Your task to perform on an android device: uninstall "Microsoft Excel" Image 0: 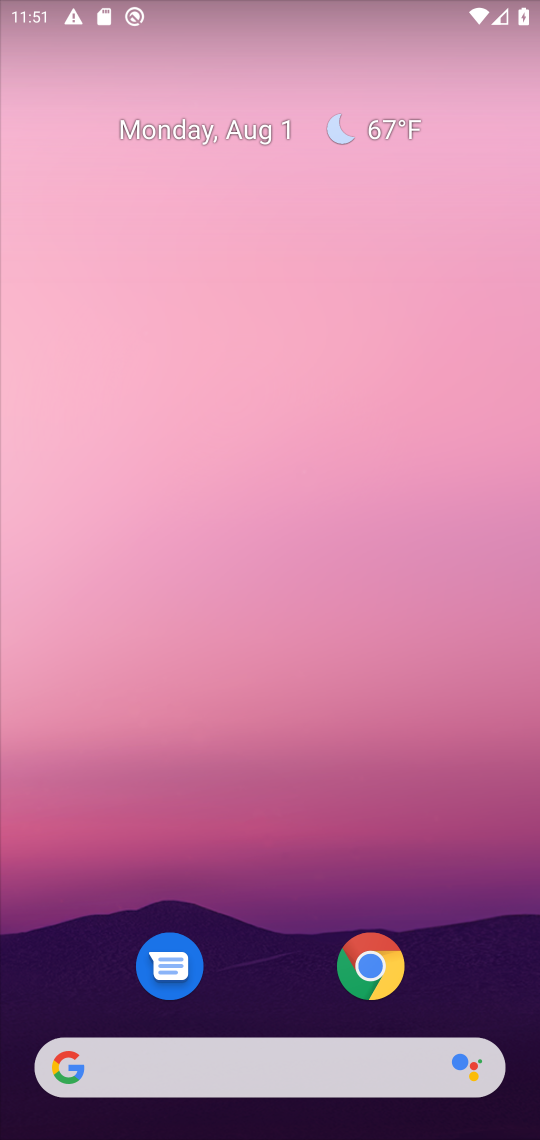
Step 0: drag from (470, 864) to (472, 97)
Your task to perform on an android device: uninstall "Microsoft Excel" Image 1: 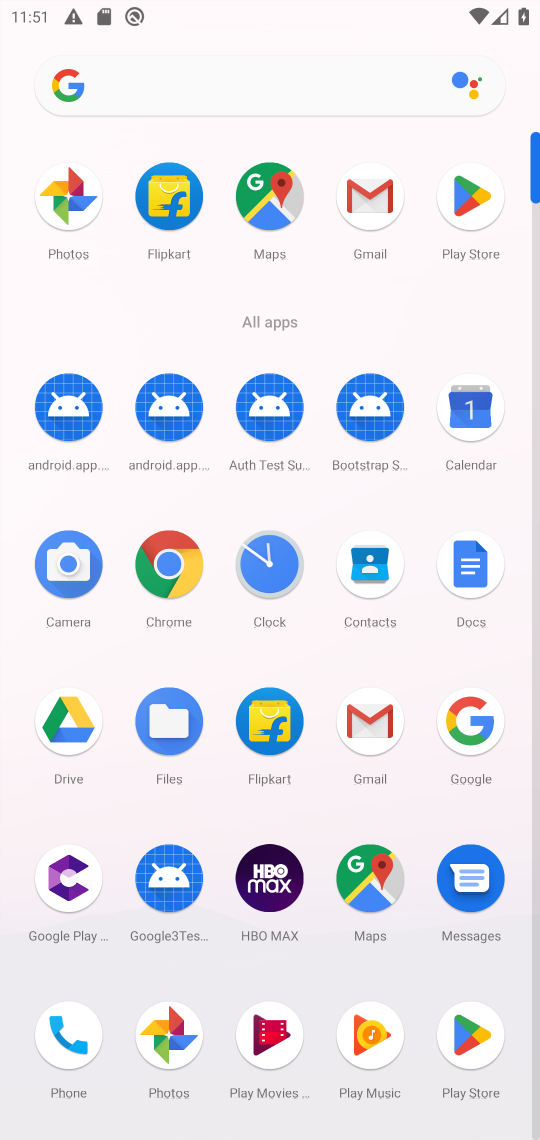
Step 1: click (466, 204)
Your task to perform on an android device: uninstall "Microsoft Excel" Image 2: 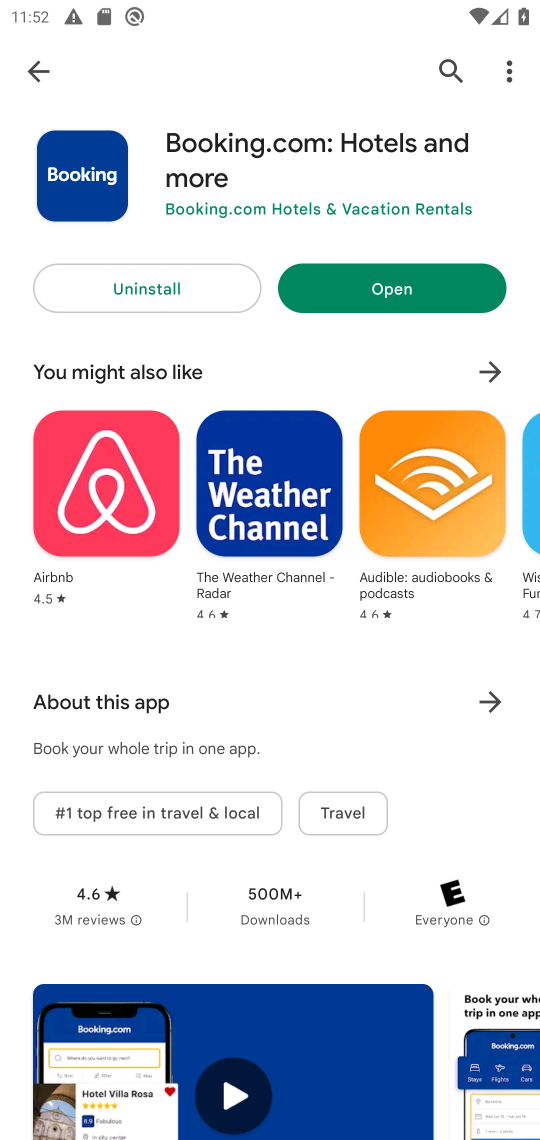
Step 2: click (445, 71)
Your task to perform on an android device: uninstall "Microsoft Excel" Image 3: 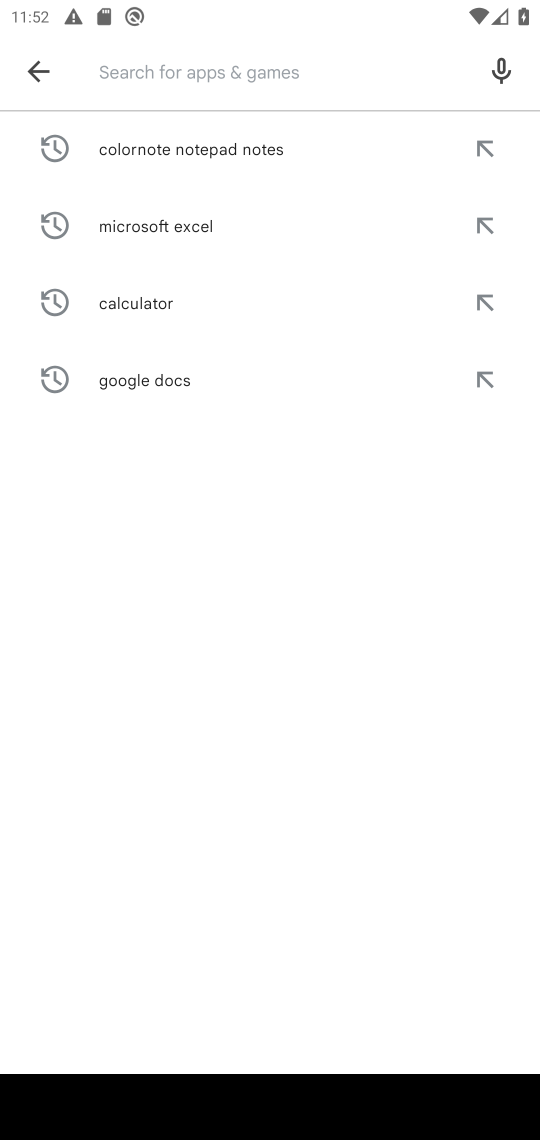
Step 3: click (356, 83)
Your task to perform on an android device: uninstall "Microsoft Excel" Image 4: 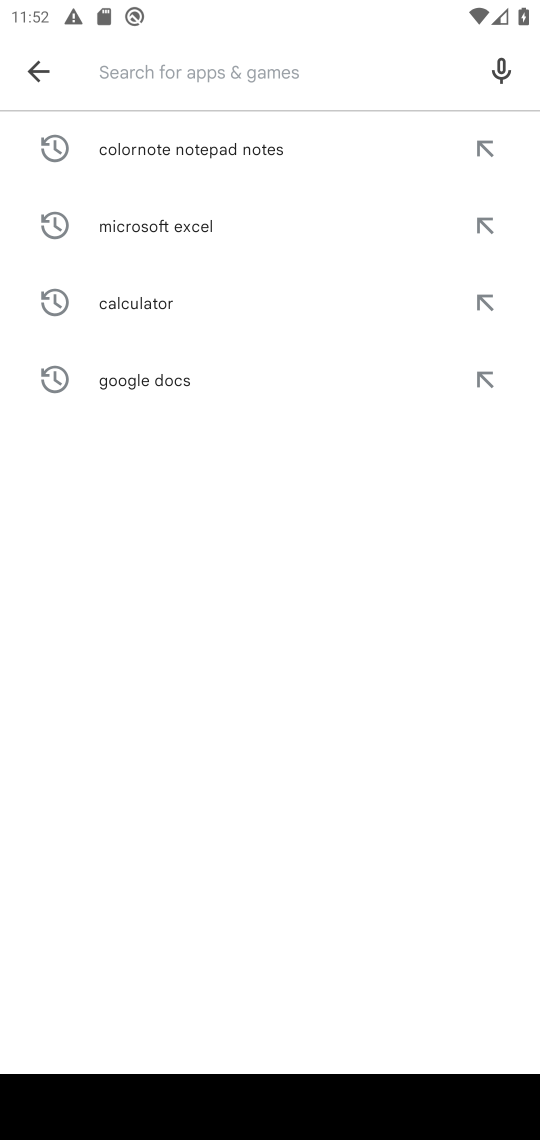
Step 4: type "microsoft excel"
Your task to perform on an android device: uninstall "Microsoft Excel" Image 5: 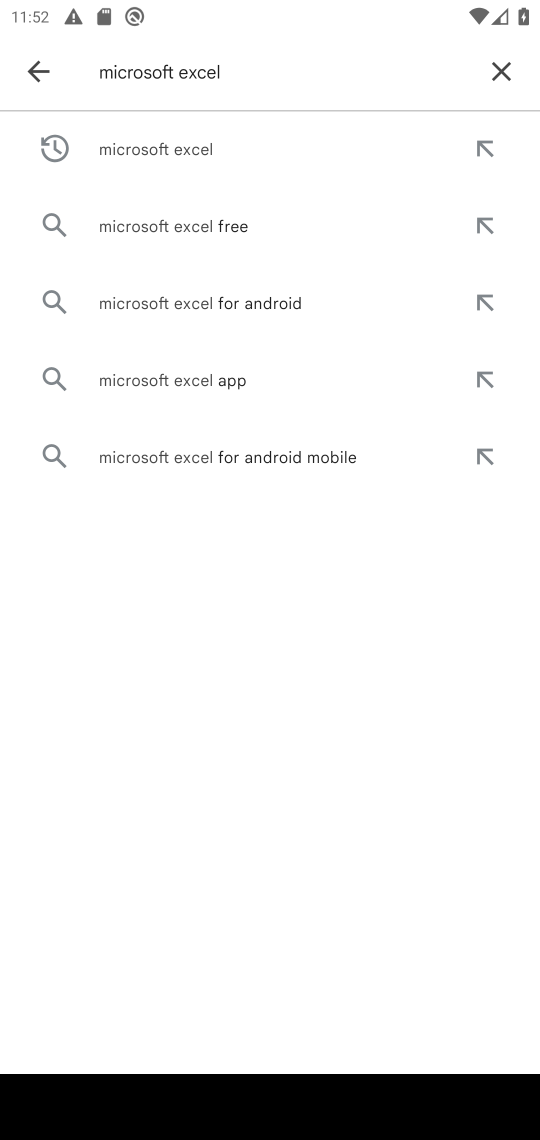
Step 5: click (226, 144)
Your task to perform on an android device: uninstall "Microsoft Excel" Image 6: 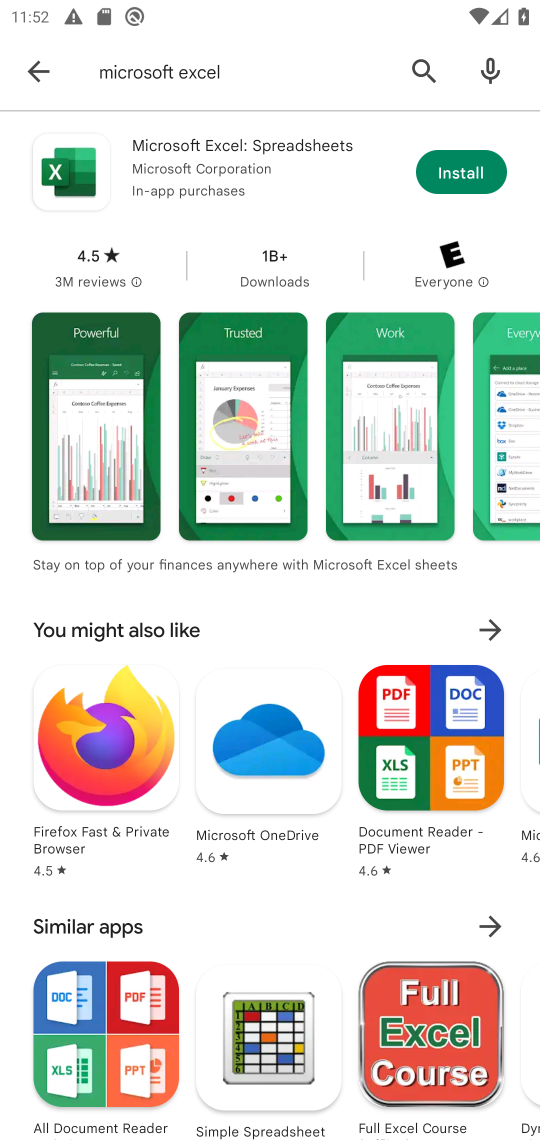
Step 6: task complete